Your task to perform on an android device: open app "Clock" Image 0: 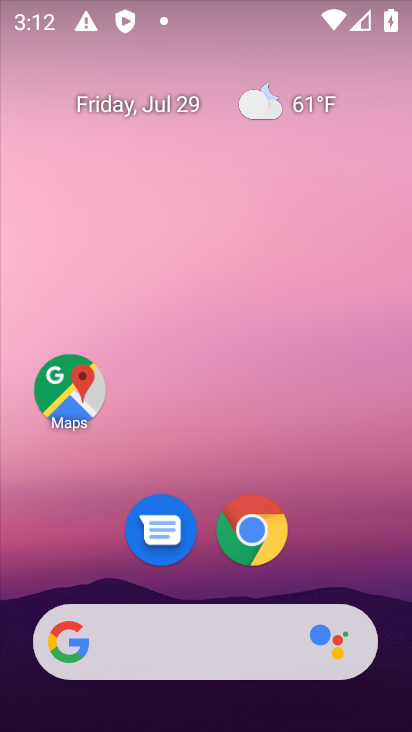
Step 0: drag from (310, 578) to (286, 11)
Your task to perform on an android device: open app "Clock" Image 1: 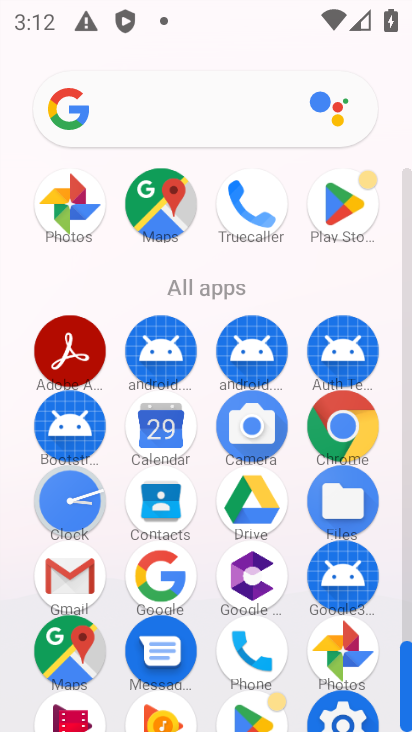
Step 1: click (64, 504)
Your task to perform on an android device: open app "Clock" Image 2: 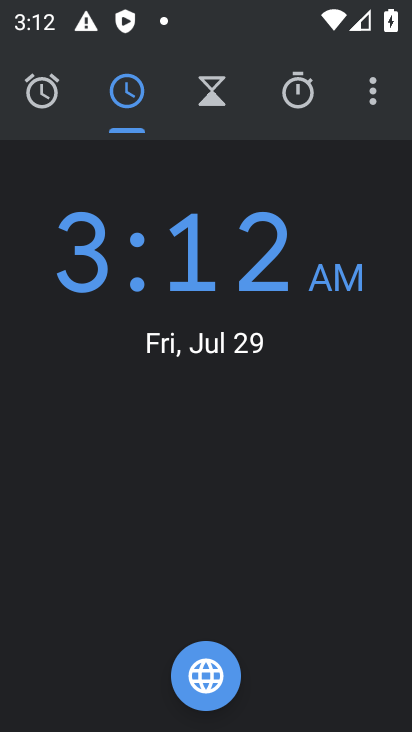
Step 2: task complete